Your task to perform on an android device: change the clock display to digital Image 0: 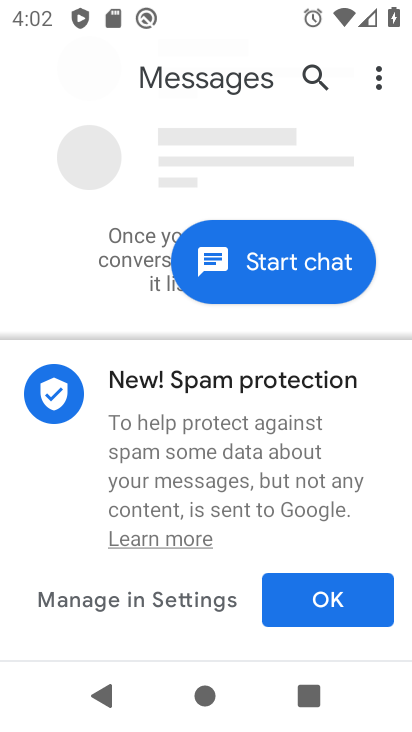
Step 0: press home button
Your task to perform on an android device: change the clock display to digital Image 1: 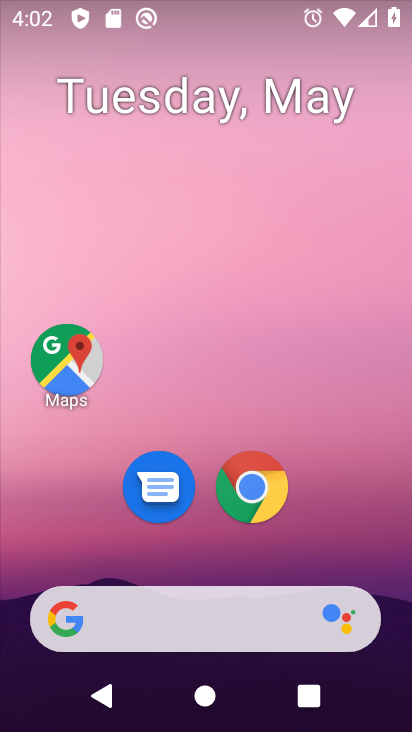
Step 1: drag from (326, 399) to (318, 131)
Your task to perform on an android device: change the clock display to digital Image 2: 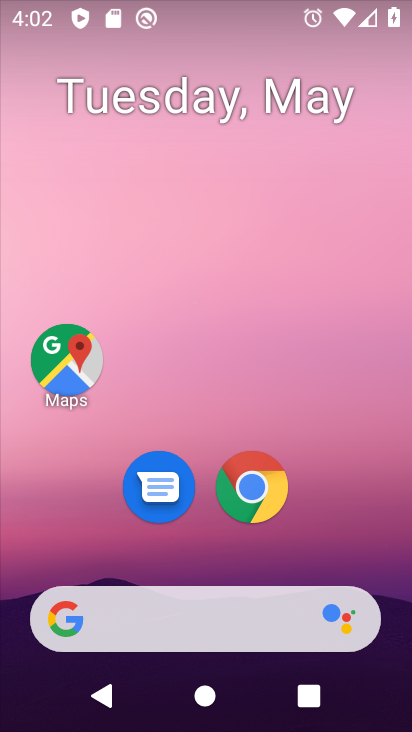
Step 2: drag from (329, 506) to (331, 171)
Your task to perform on an android device: change the clock display to digital Image 3: 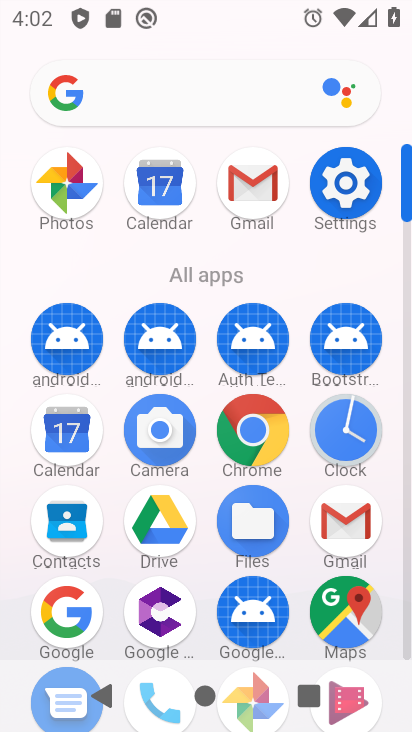
Step 3: click (353, 422)
Your task to perform on an android device: change the clock display to digital Image 4: 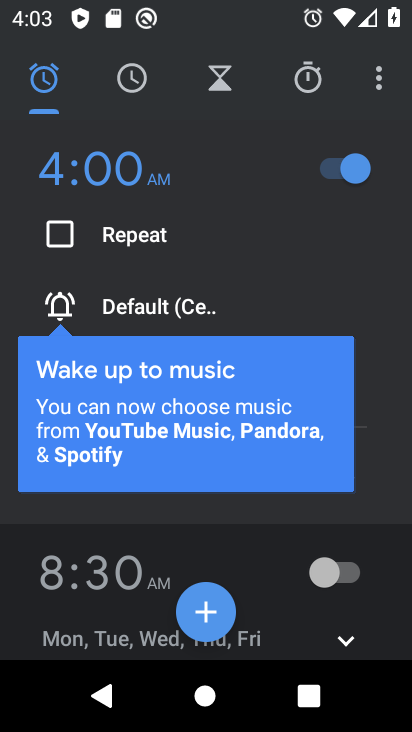
Step 4: click (375, 81)
Your task to perform on an android device: change the clock display to digital Image 5: 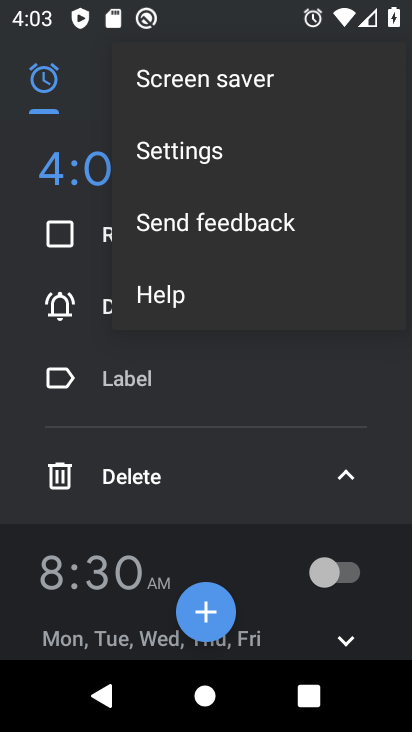
Step 5: click (243, 160)
Your task to perform on an android device: change the clock display to digital Image 6: 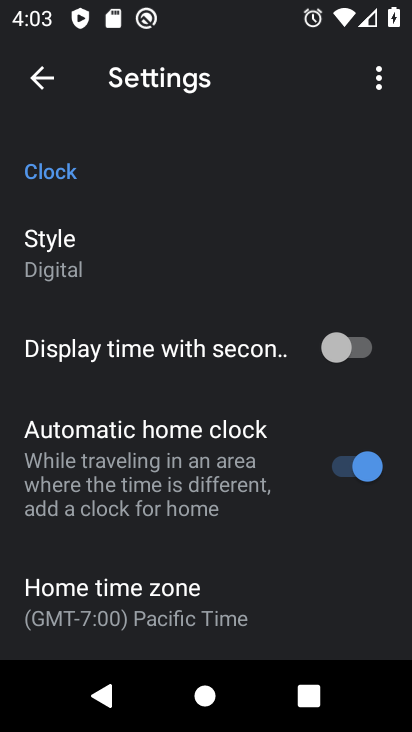
Step 6: click (62, 249)
Your task to perform on an android device: change the clock display to digital Image 7: 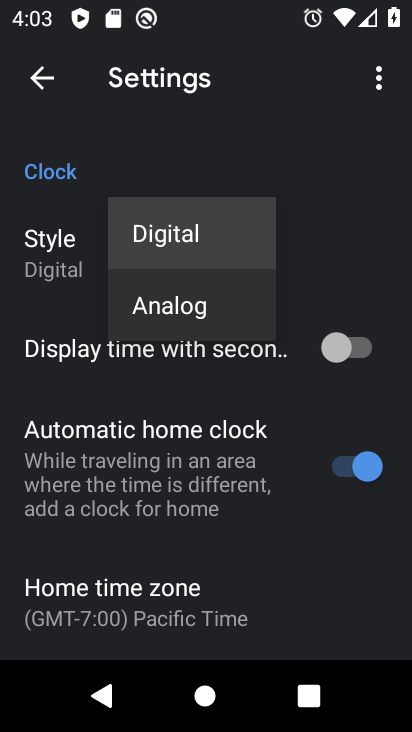
Step 7: task complete